Your task to perform on an android device: turn on airplane mode Image 0: 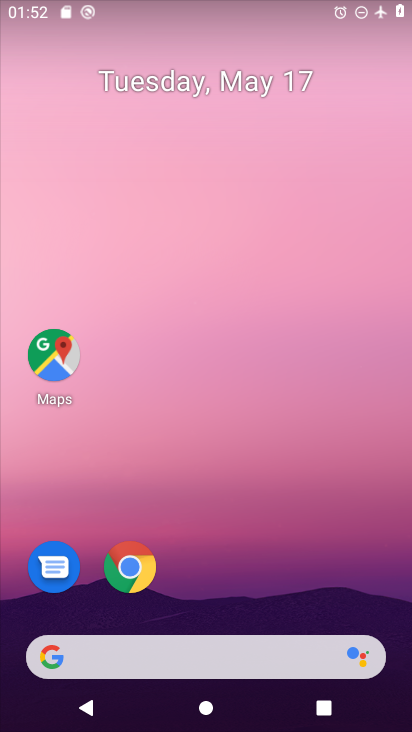
Step 0: drag from (223, 582) to (100, 64)
Your task to perform on an android device: turn on airplane mode Image 1: 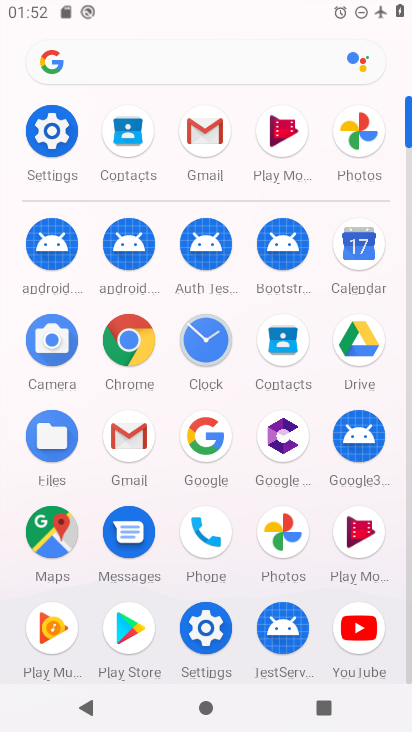
Step 1: click (46, 123)
Your task to perform on an android device: turn on airplane mode Image 2: 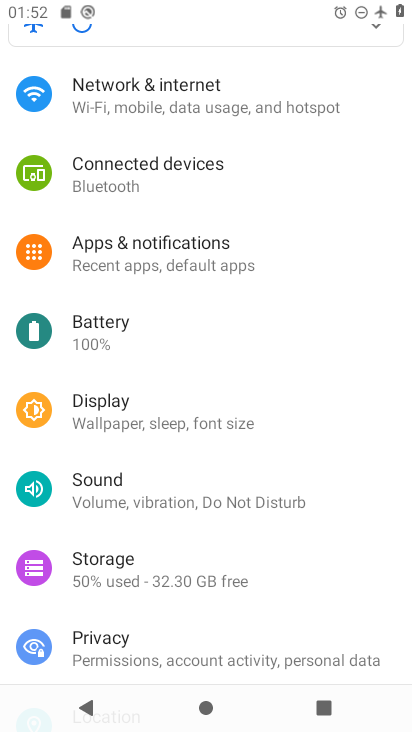
Step 2: click (153, 90)
Your task to perform on an android device: turn on airplane mode Image 3: 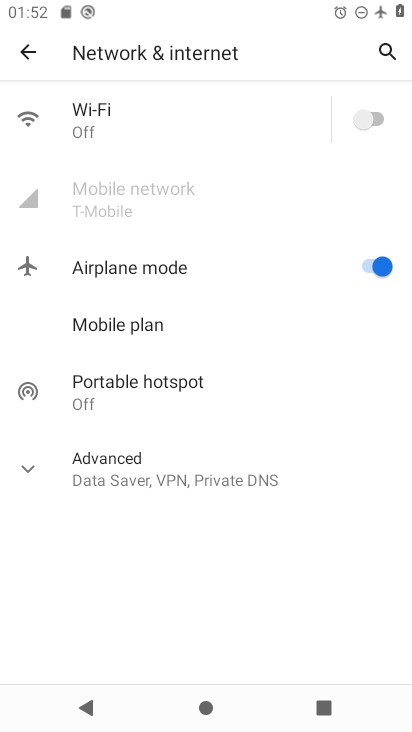
Step 3: task complete